Your task to perform on an android device: empty trash in the gmail app Image 0: 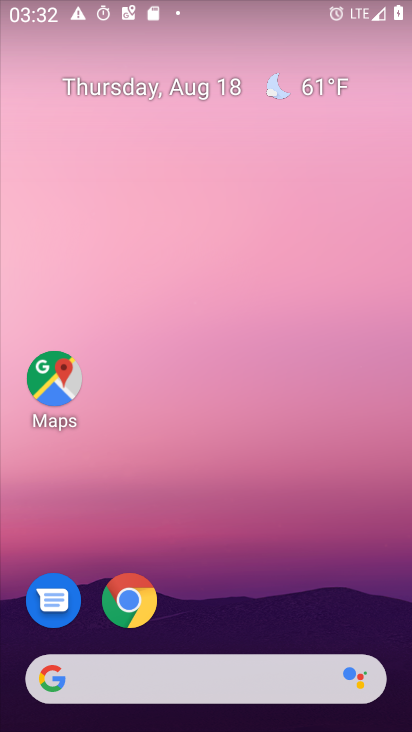
Step 0: press home button
Your task to perform on an android device: empty trash in the gmail app Image 1: 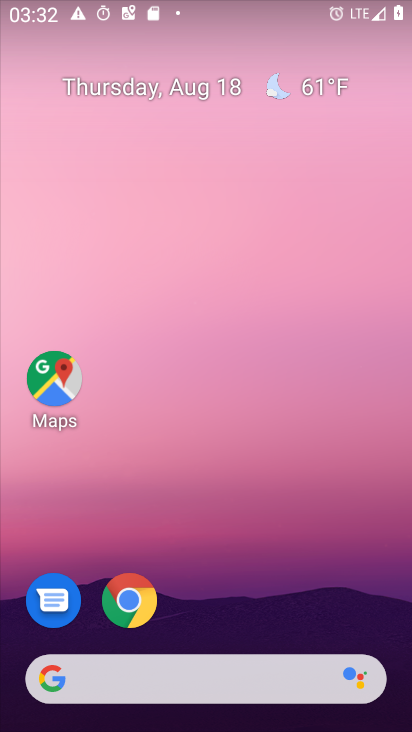
Step 1: drag from (287, 630) to (281, 74)
Your task to perform on an android device: empty trash in the gmail app Image 2: 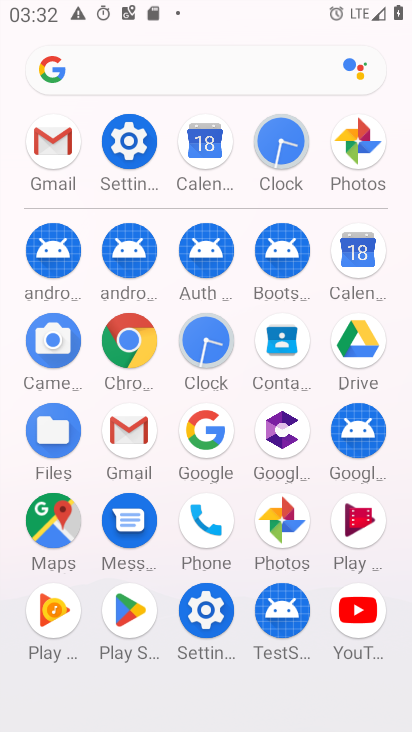
Step 2: click (51, 150)
Your task to perform on an android device: empty trash in the gmail app Image 3: 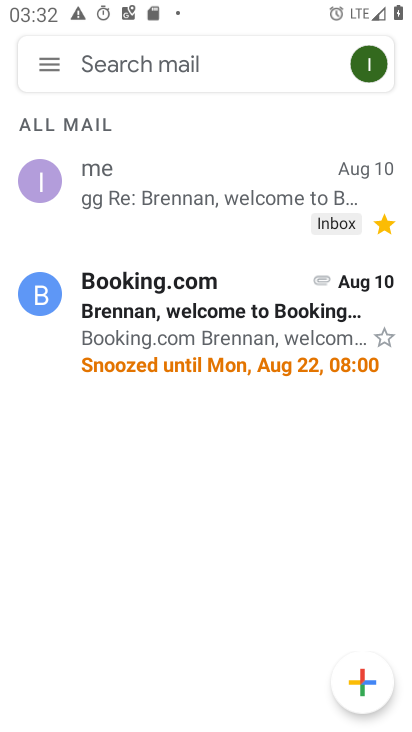
Step 3: click (59, 73)
Your task to perform on an android device: empty trash in the gmail app Image 4: 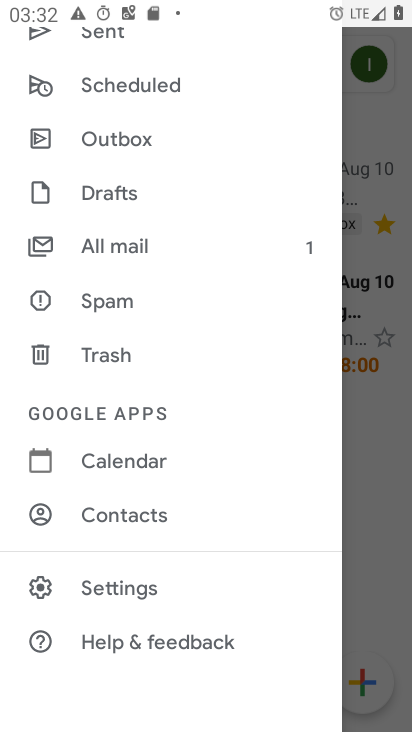
Step 4: click (89, 349)
Your task to perform on an android device: empty trash in the gmail app Image 5: 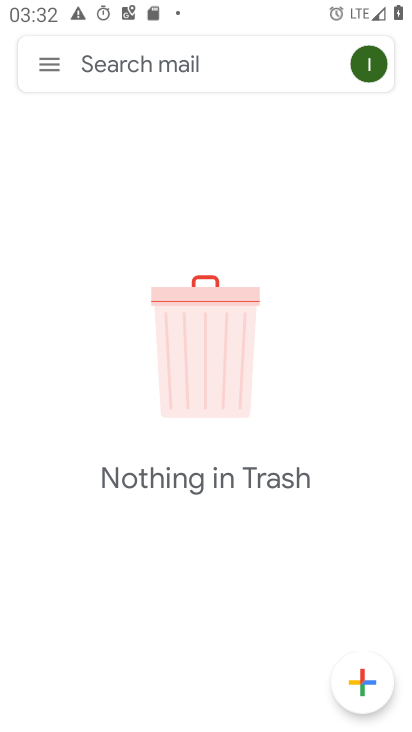
Step 5: task complete